Your task to perform on an android device: Clear the cart on ebay.com. Add "energizer triple a" to the cart on ebay.com Image 0: 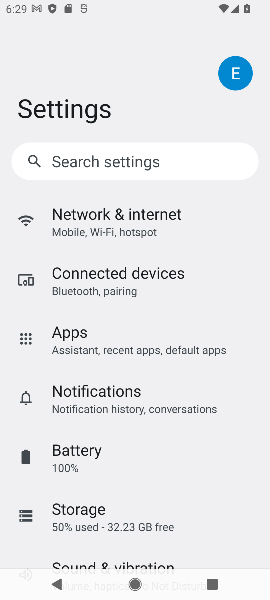
Step 0: press home button
Your task to perform on an android device: Clear the cart on ebay.com. Add "energizer triple a" to the cart on ebay.com Image 1: 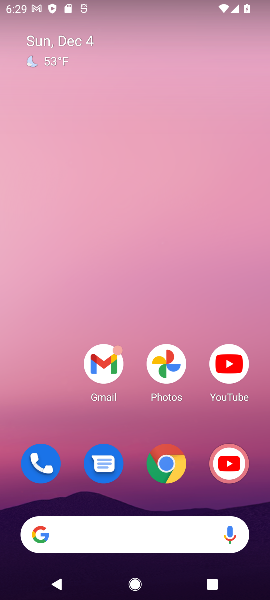
Step 1: task complete